Your task to perform on an android device: When is my next meeting? Image 0: 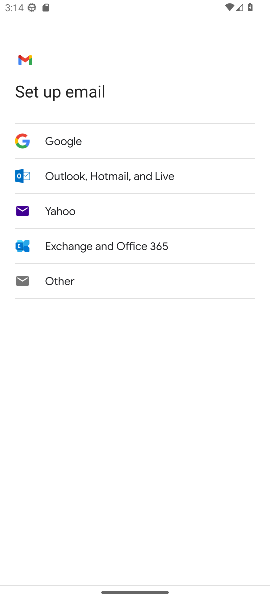
Step 0: press home button
Your task to perform on an android device: When is my next meeting? Image 1: 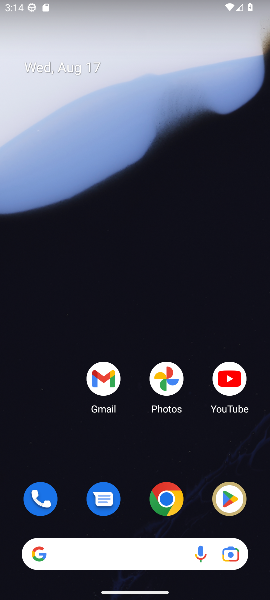
Step 1: drag from (138, 443) to (155, 3)
Your task to perform on an android device: When is my next meeting? Image 2: 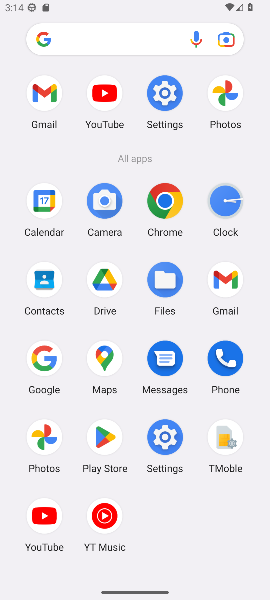
Step 2: click (42, 197)
Your task to perform on an android device: When is my next meeting? Image 3: 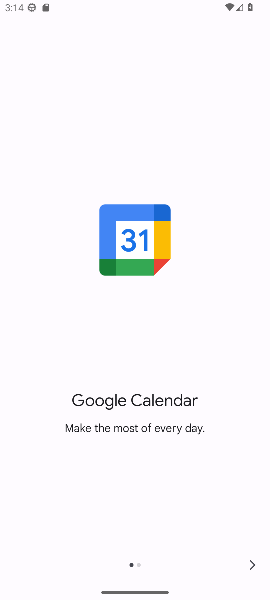
Step 3: click (245, 562)
Your task to perform on an android device: When is my next meeting? Image 4: 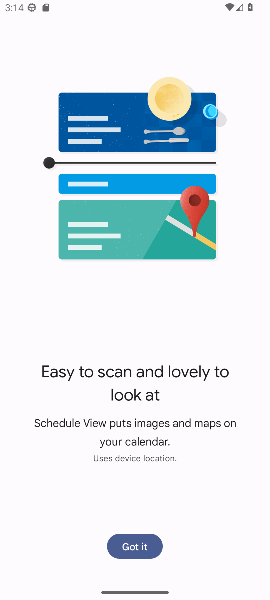
Step 4: click (245, 562)
Your task to perform on an android device: When is my next meeting? Image 5: 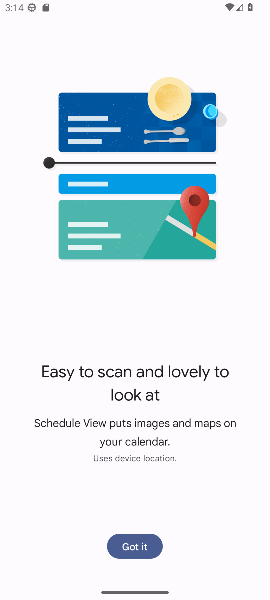
Step 5: click (116, 544)
Your task to perform on an android device: When is my next meeting? Image 6: 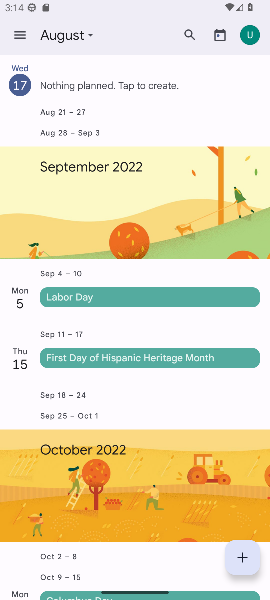
Step 6: click (76, 30)
Your task to perform on an android device: When is my next meeting? Image 7: 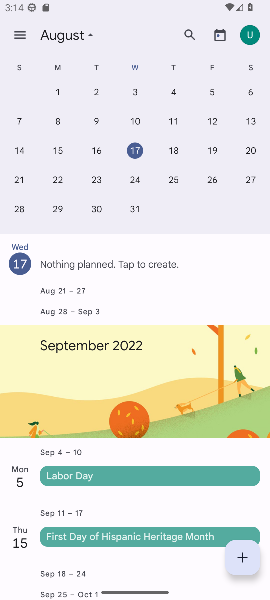
Step 7: click (139, 149)
Your task to perform on an android device: When is my next meeting? Image 8: 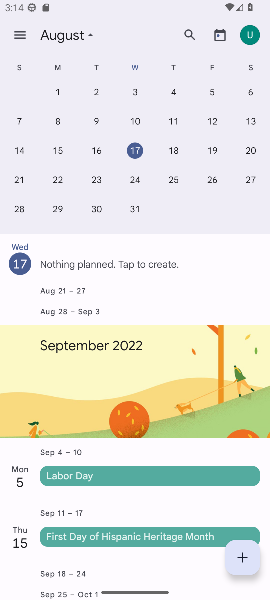
Step 8: task complete